Your task to perform on an android device: install app "Roku - Official Remote Control" Image 0: 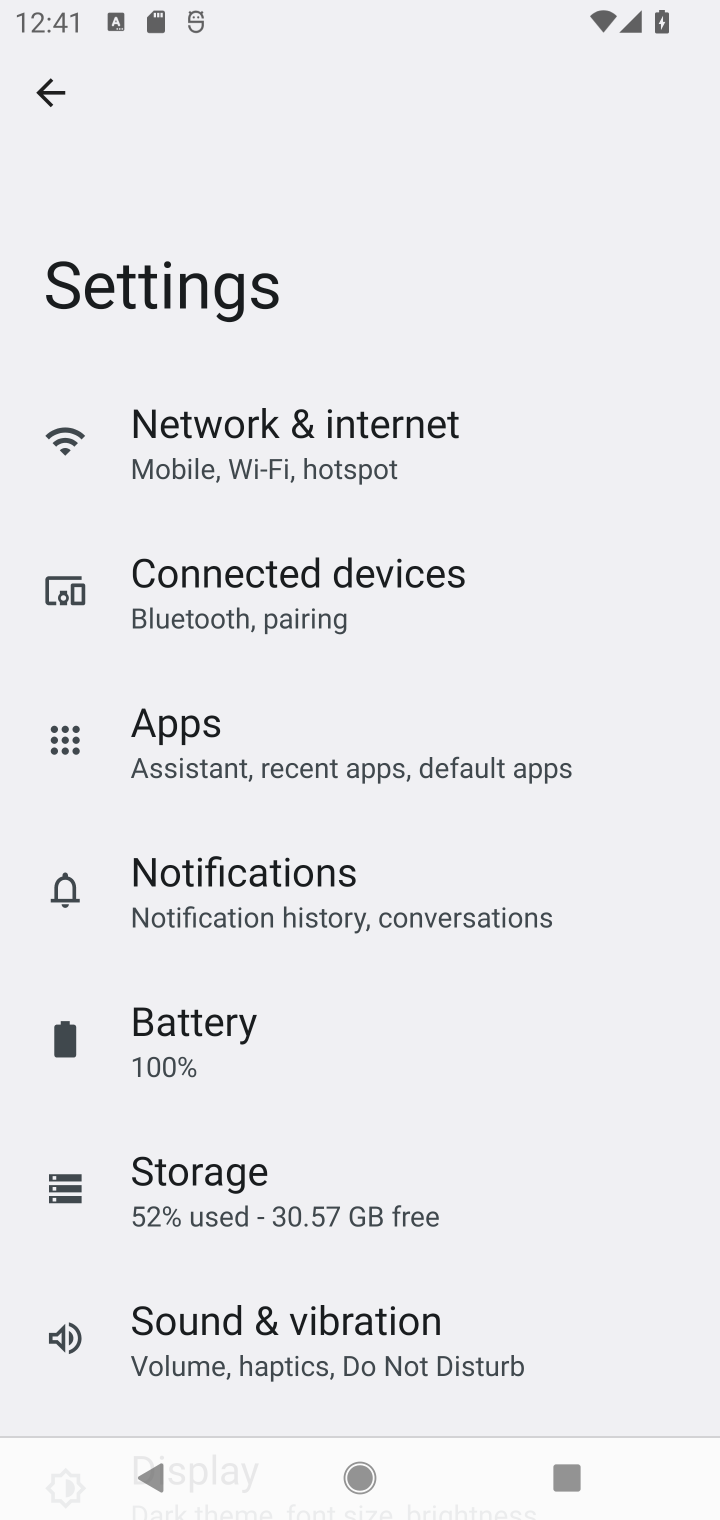
Step 0: press home button
Your task to perform on an android device: install app "Roku - Official Remote Control" Image 1: 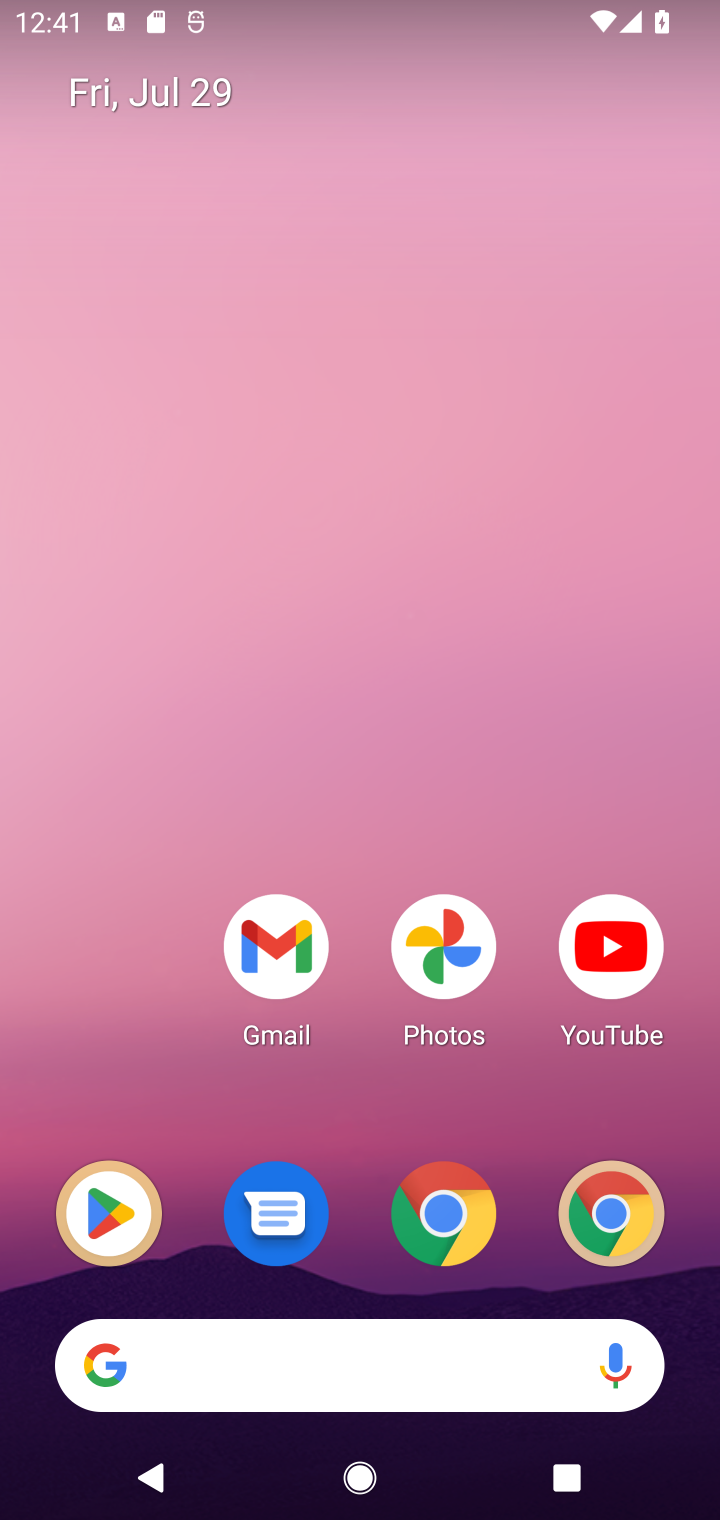
Step 1: drag from (415, 1503) to (412, 132)
Your task to perform on an android device: install app "Roku - Official Remote Control" Image 2: 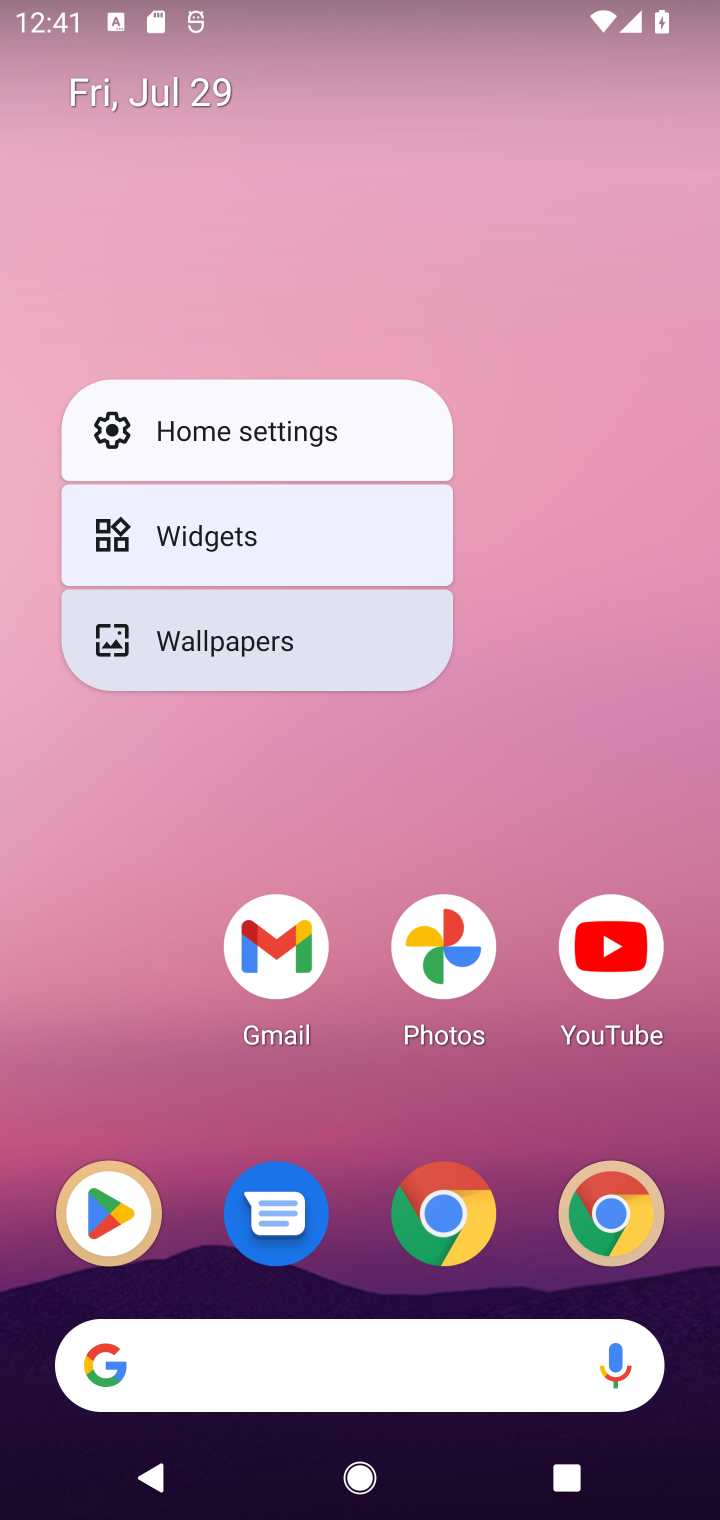
Step 2: click (460, 323)
Your task to perform on an android device: install app "Roku - Official Remote Control" Image 3: 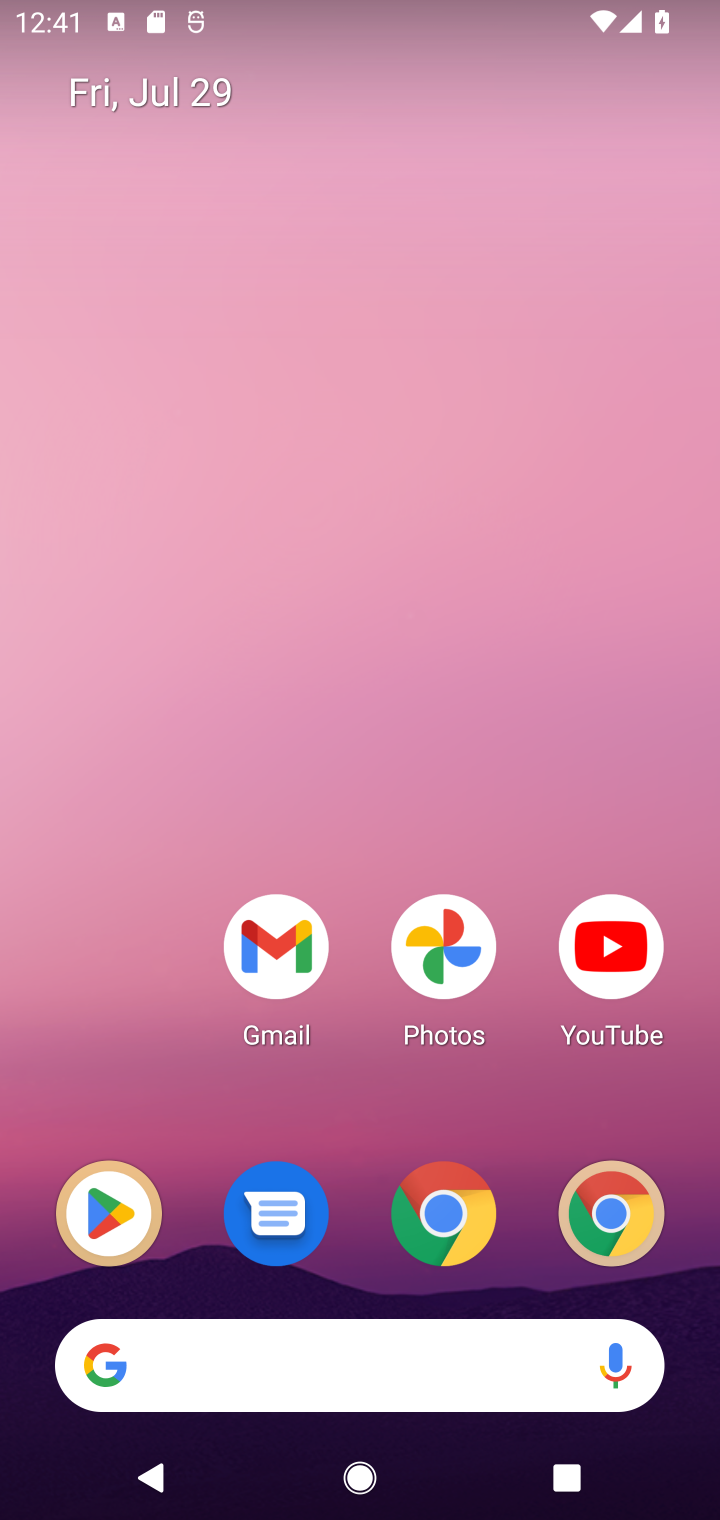
Step 3: drag from (407, 1489) to (394, 12)
Your task to perform on an android device: install app "Roku - Official Remote Control" Image 4: 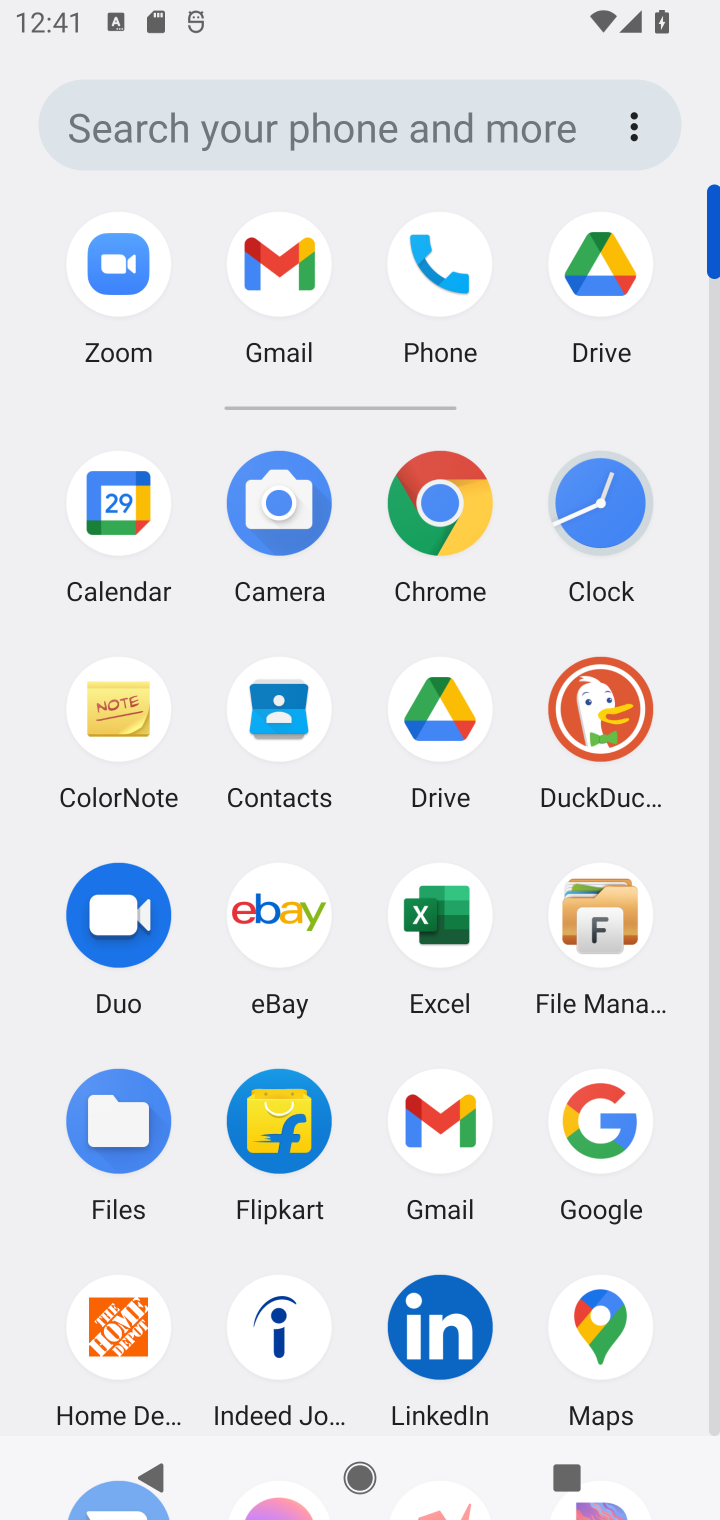
Step 4: drag from (384, 1207) to (393, 534)
Your task to perform on an android device: install app "Roku - Official Remote Control" Image 5: 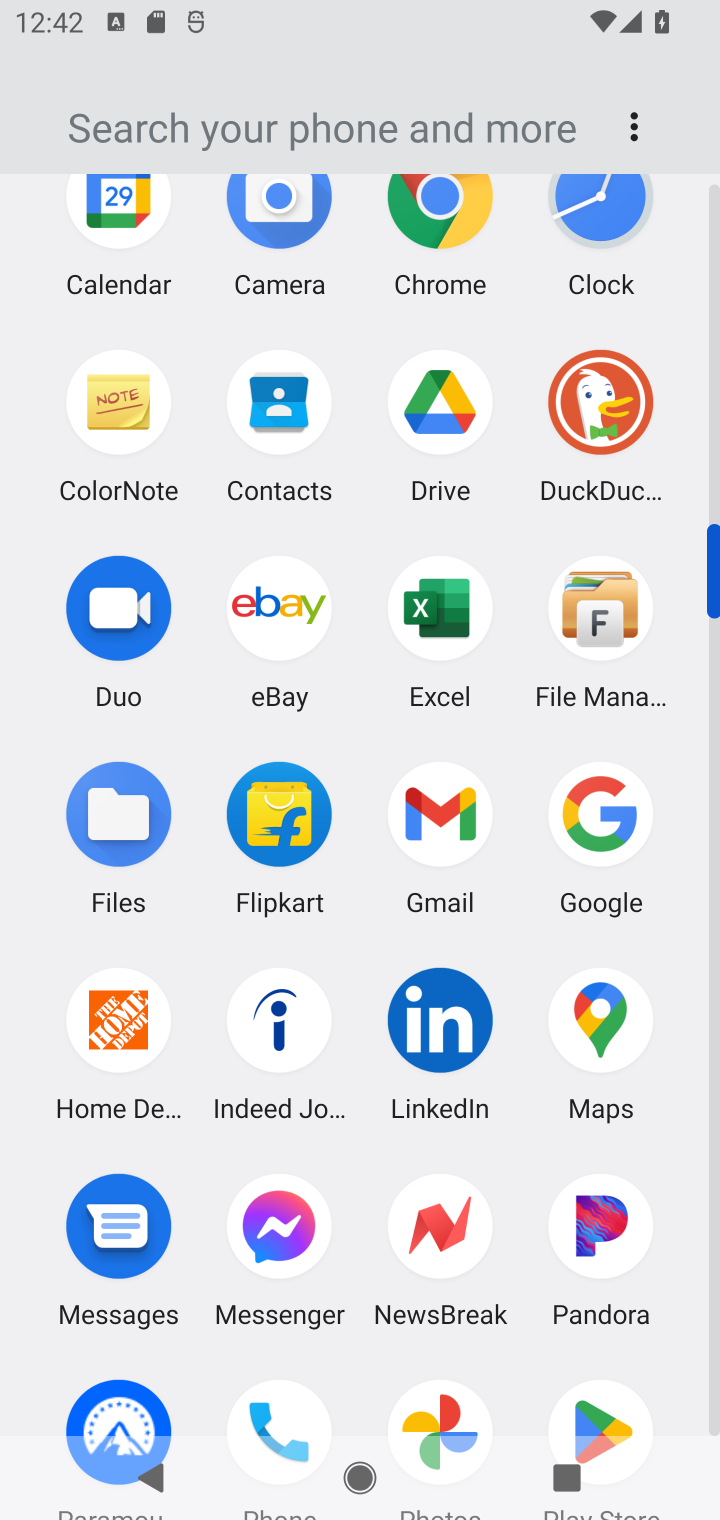
Step 5: click (612, 1406)
Your task to perform on an android device: install app "Roku - Official Remote Control" Image 6: 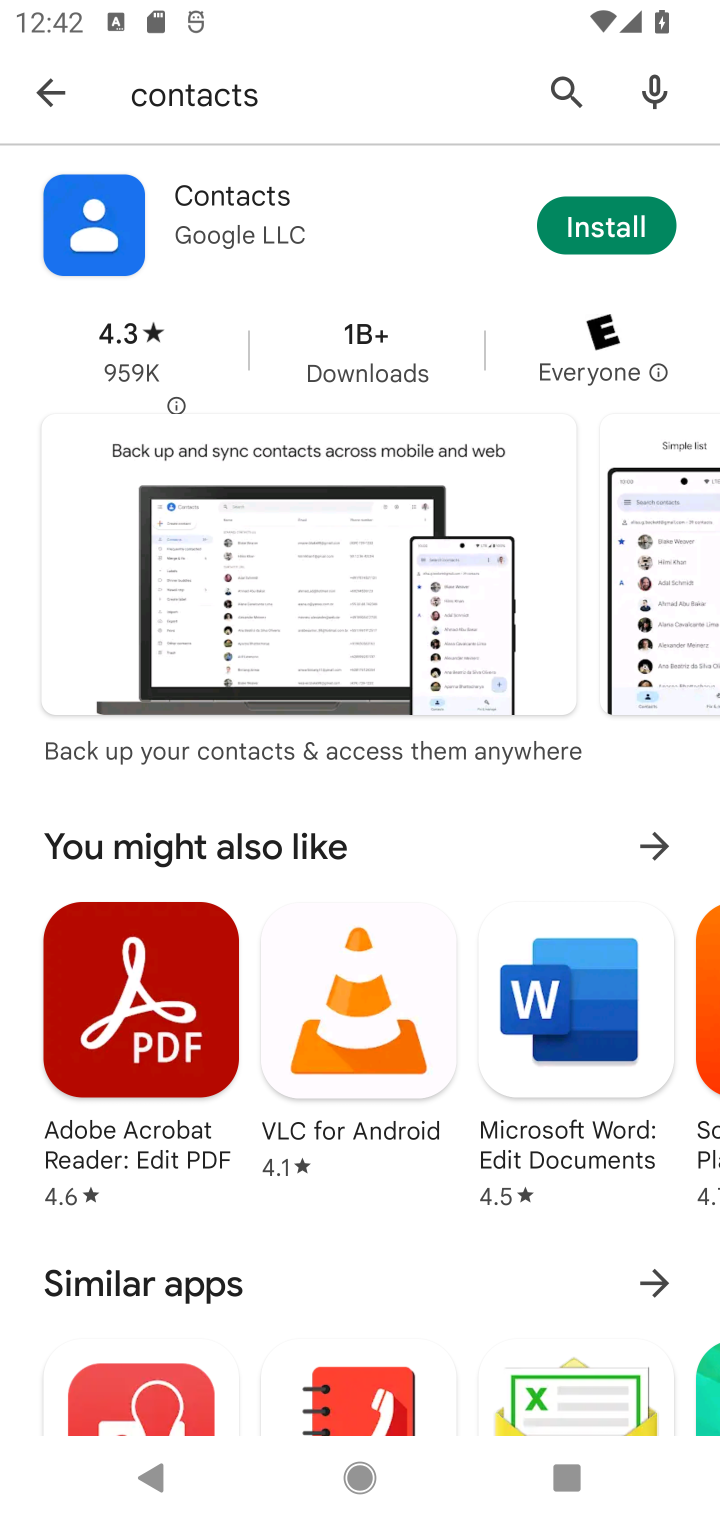
Step 6: type "Roku - Official Remote Control"
Your task to perform on an android device: install app "Roku - Official Remote Control" Image 7: 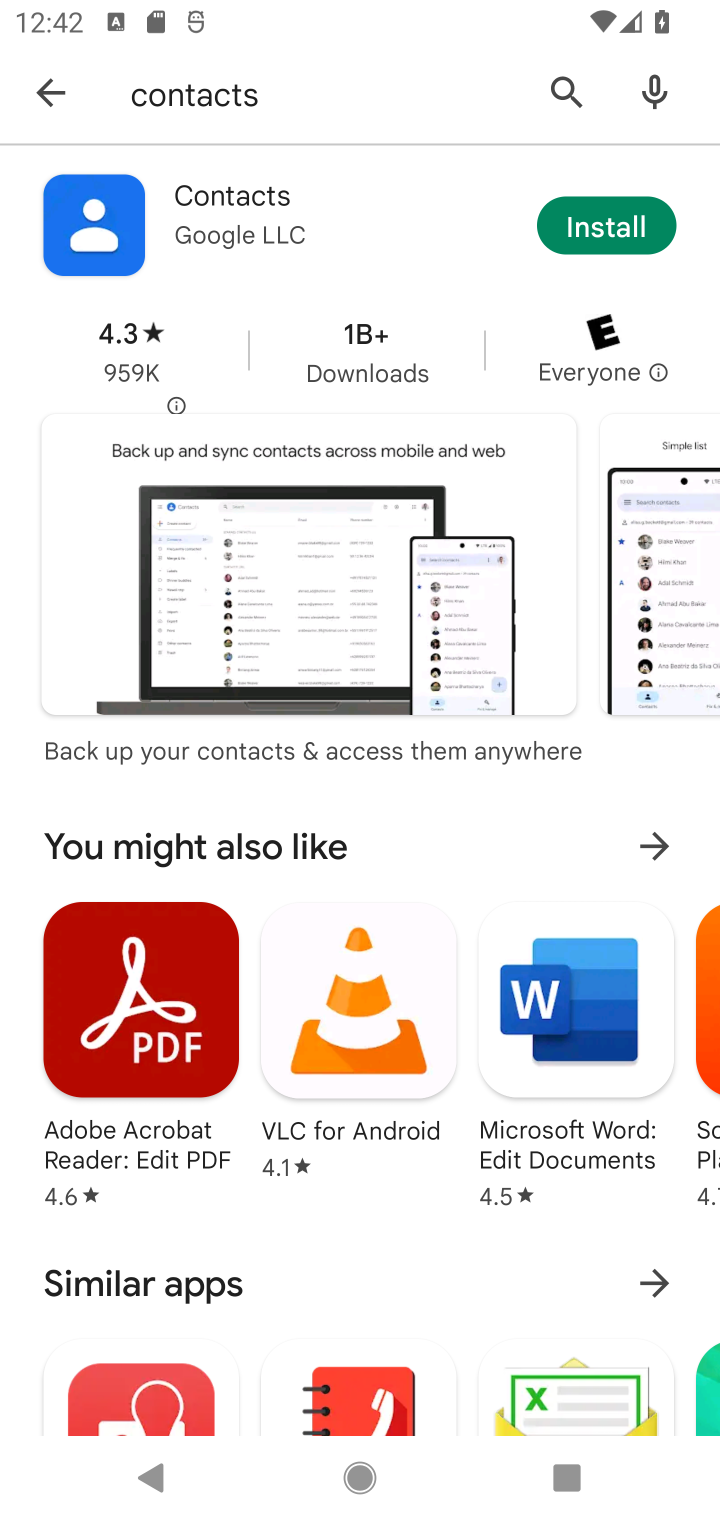
Step 7: click (556, 86)
Your task to perform on an android device: install app "Roku - Official Remote Control" Image 8: 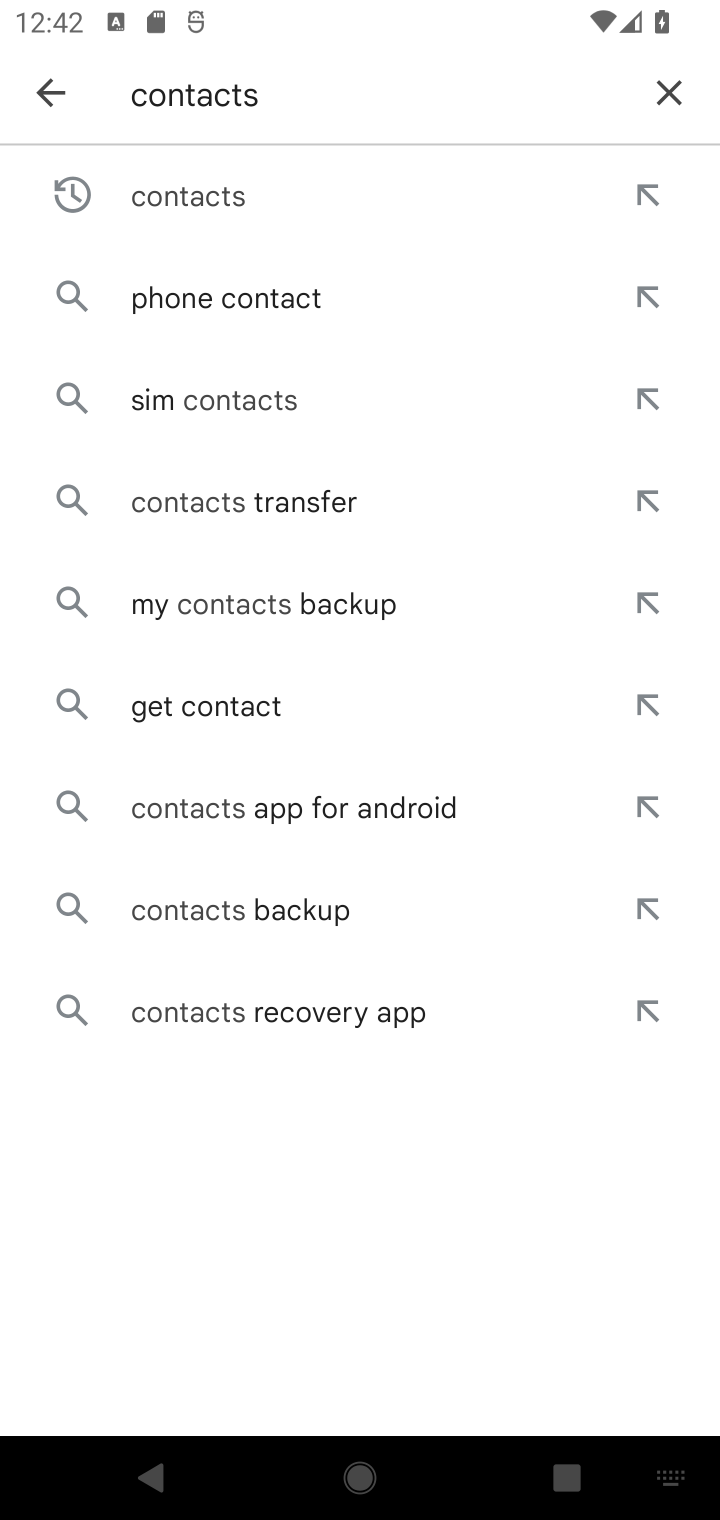
Step 8: click (664, 90)
Your task to perform on an android device: install app "Roku - Official Remote Control" Image 9: 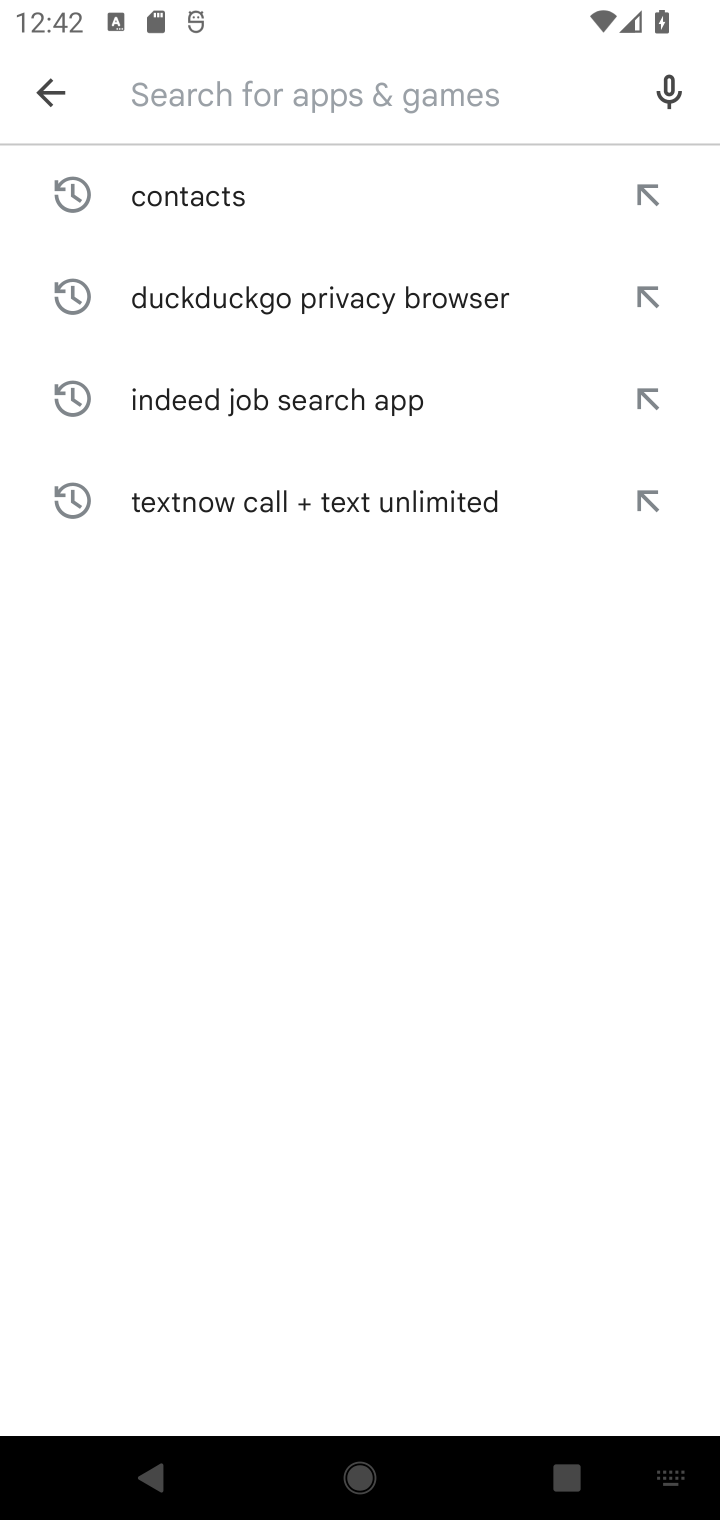
Step 9: type "Roku - Official Remote Control"
Your task to perform on an android device: install app "Roku - Official Remote Control" Image 10: 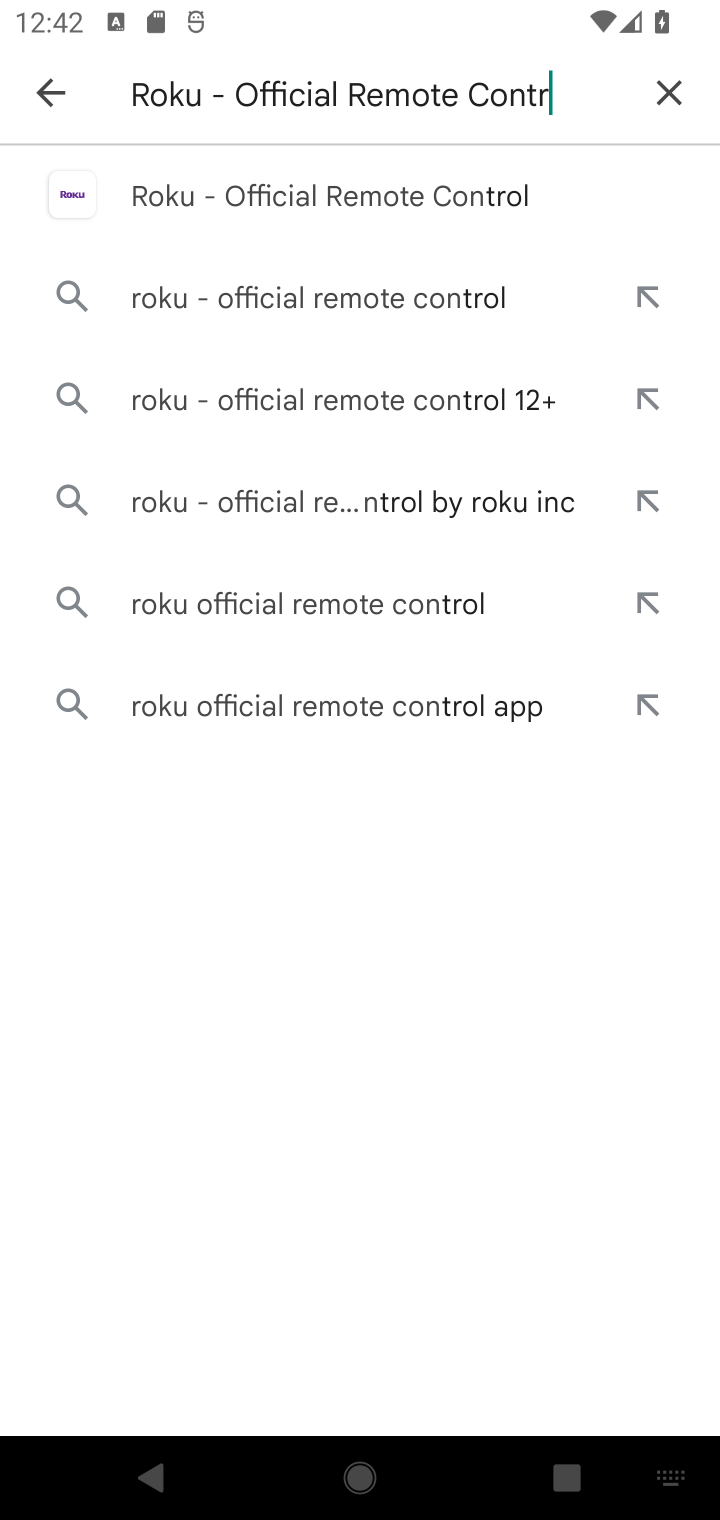
Step 10: type ""
Your task to perform on an android device: install app "Roku - Official Remote Control" Image 11: 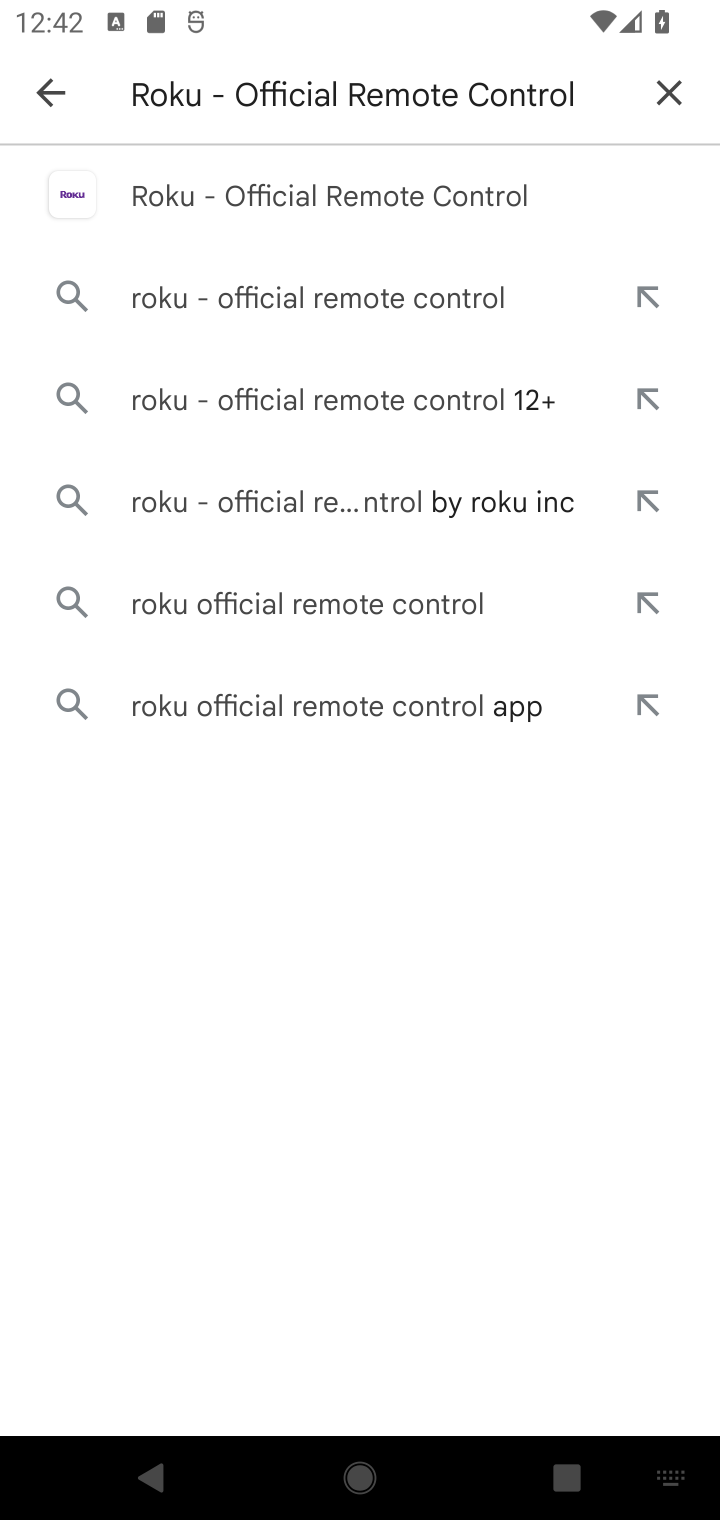
Step 11: click (400, 180)
Your task to perform on an android device: install app "Roku - Official Remote Control" Image 12: 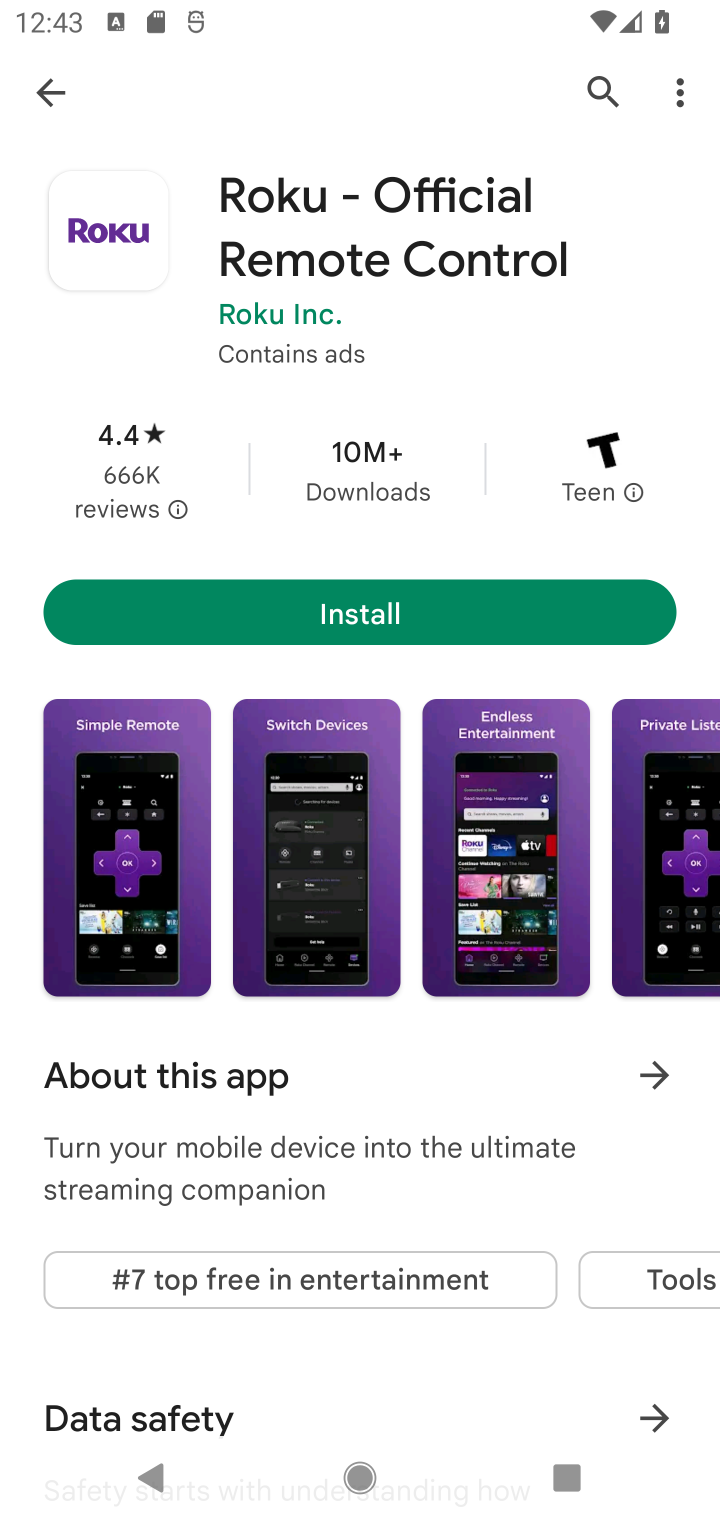
Step 12: click (424, 618)
Your task to perform on an android device: install app "Roku - Official Remote Control" Image 13: 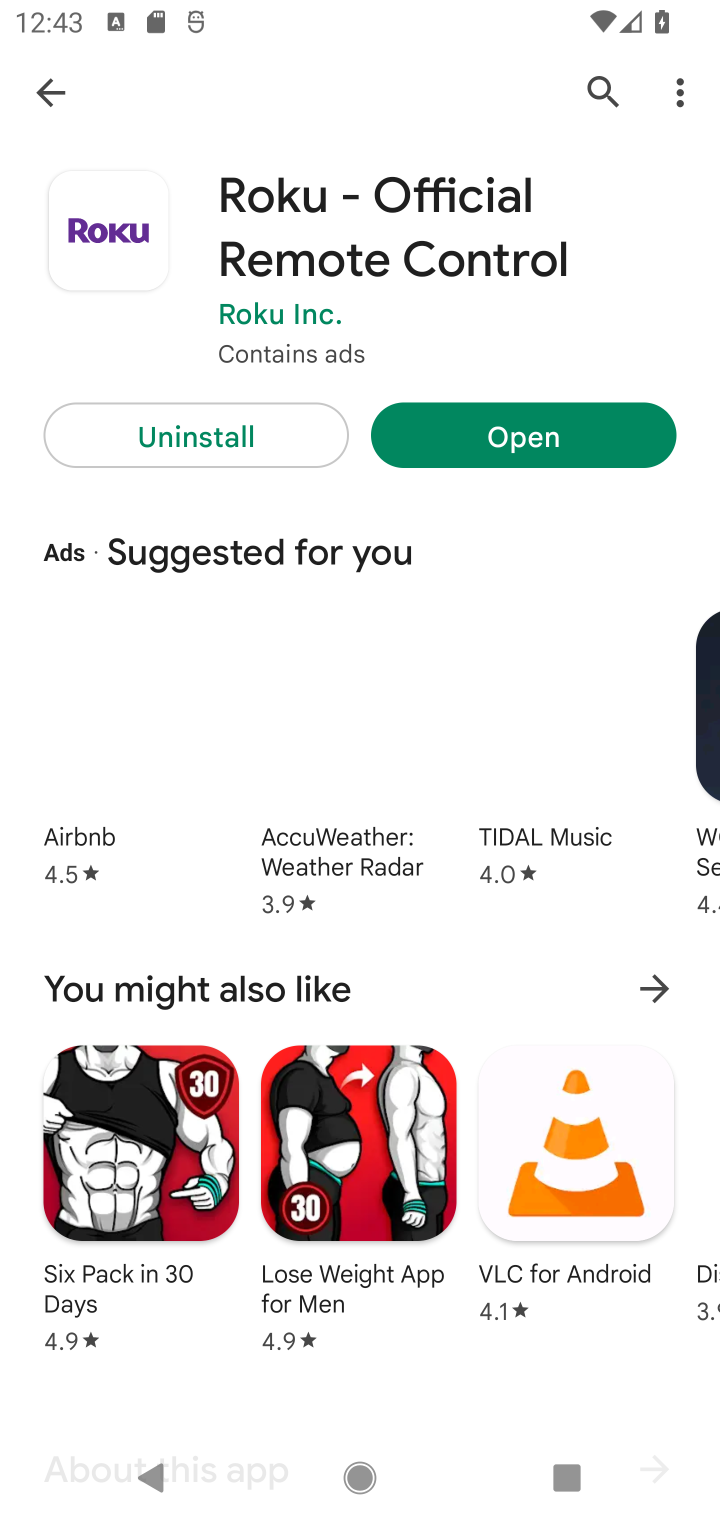
Step 13: task complete